Your task to perform on an android device: Find coffee shops on Maps Image 0: 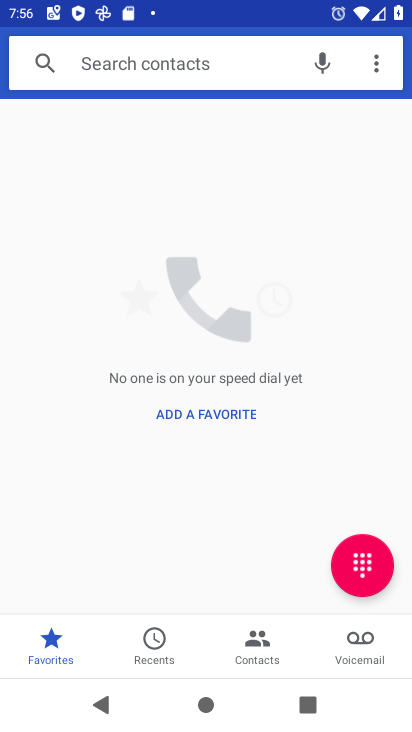
Step 0: press home button
Your task to perform on an android device: Find coffee shops on Maps Image 1: 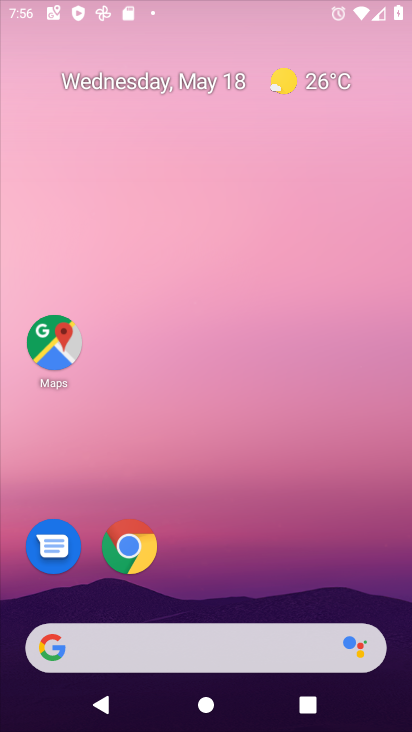
Step 1: drag from (369, 590) to (277, 51)
Your task to perform on an android device: Find coffee shops on Maps Image 2: 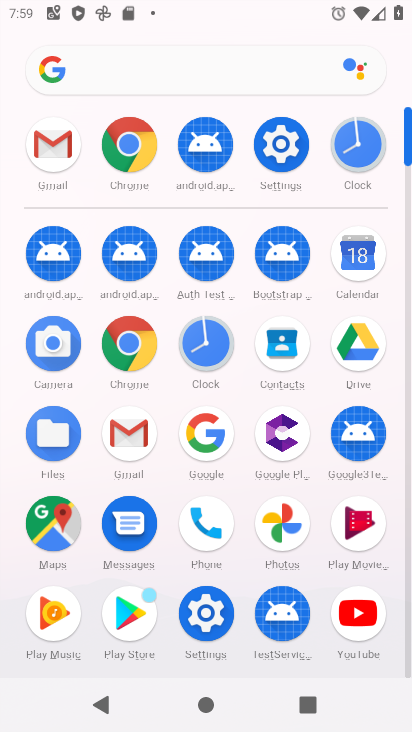
Step 2: click (61, 533)
Your task to perform on an android device: Find coffee shops on Maps Image 3: 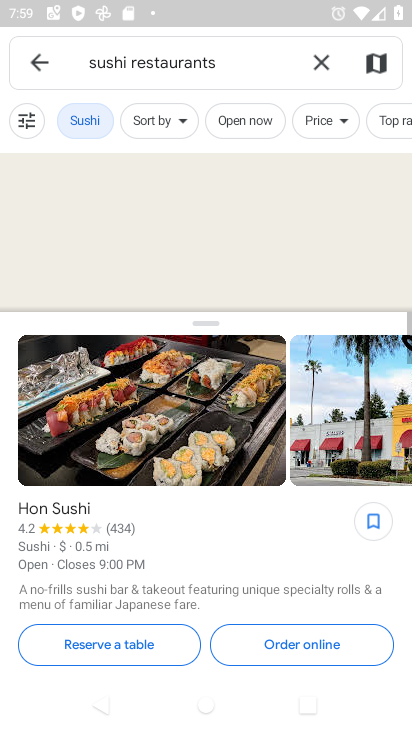
Step 3: click (329, 56)
Your task to perform on an android device: Find coffee shops on Maps Image 4: 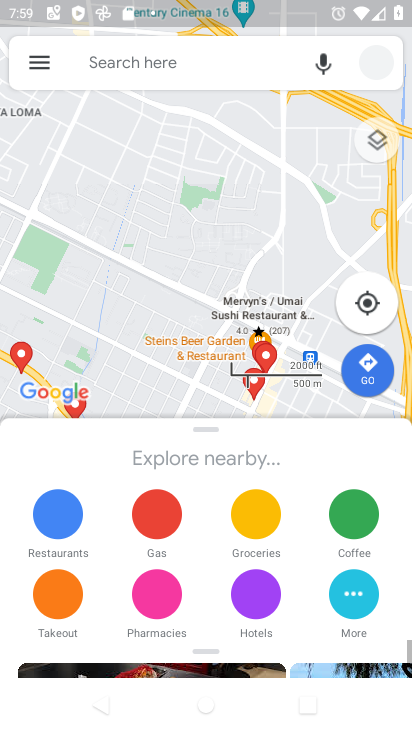
Step 4: click (244, 75)
Your task to perform on an android device: Find coffee shops on Maps Image 5: 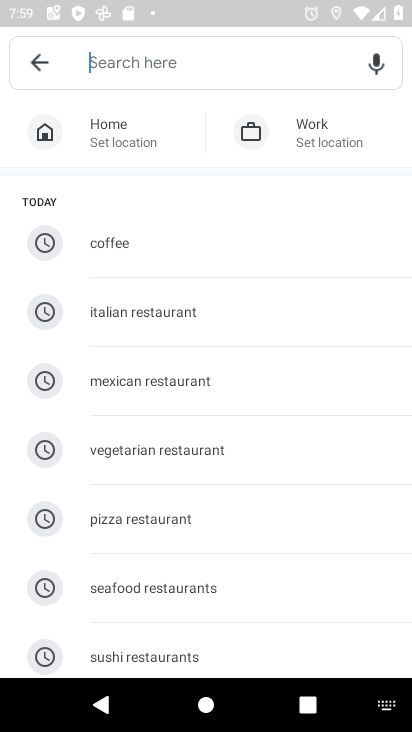
Step 5: click (166, 255)
Your task to perform on an android device: Find coffee shops on Maps Image 6: 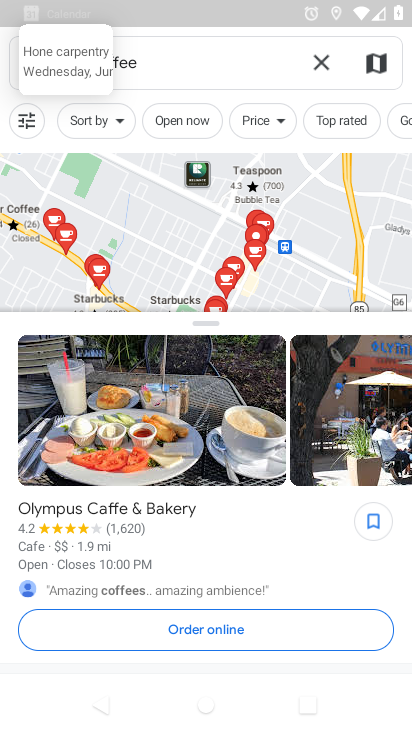
Step 6: task complete